Your task to perform on an android device: clear all cookies in the chrome app Image 0: 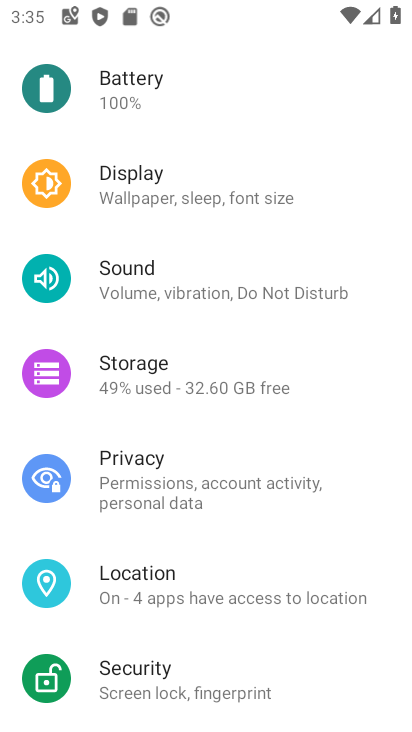
Step 0: press home button
Your task to perform on an android device: clear all cookies in the chrome app Image 1: 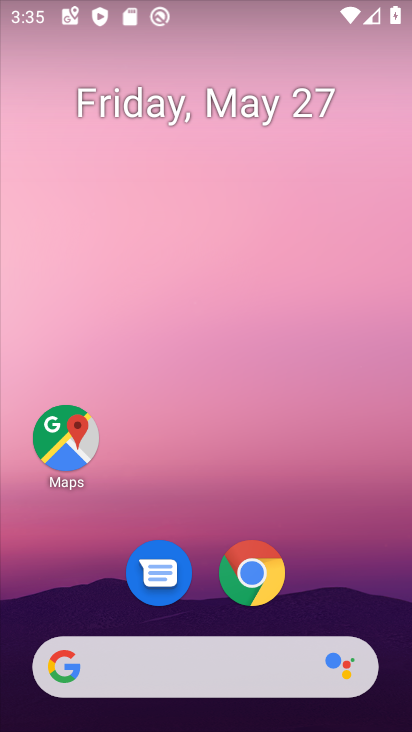
Step 1: click (257, 565)
Your task to perform on an android device: clear all cookies in the chrome app Image 2: 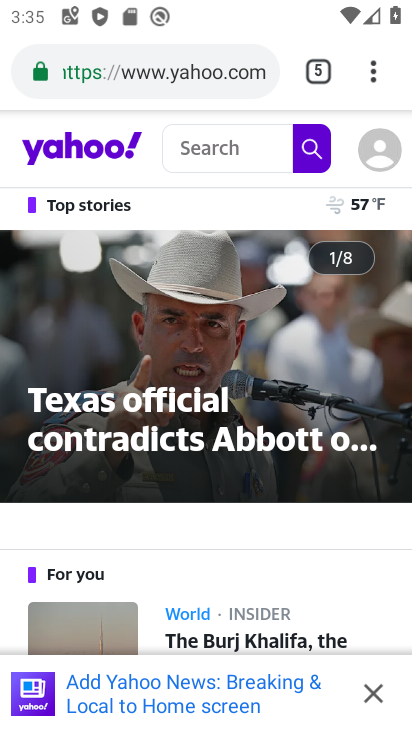
Step 2: click (370, 71)
Your task to perform on an android device: clear all cookies in the chrome app Image 3: 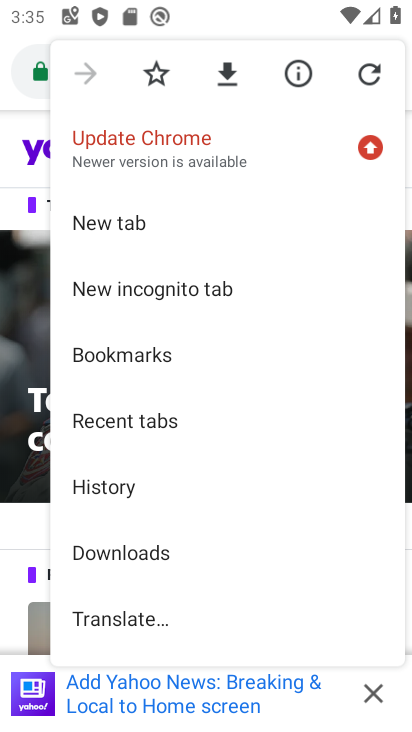
Step 3: click (127, 488)
Your task to perform on an android device: clear all cookies in the chrome app Image 4: 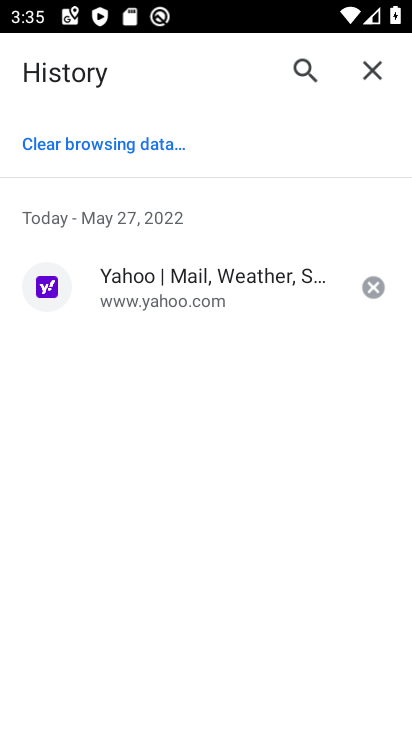
Step 4: click (115, 141)
Your task to perform on an android device: clear all cookies in the chrome app Image 5: 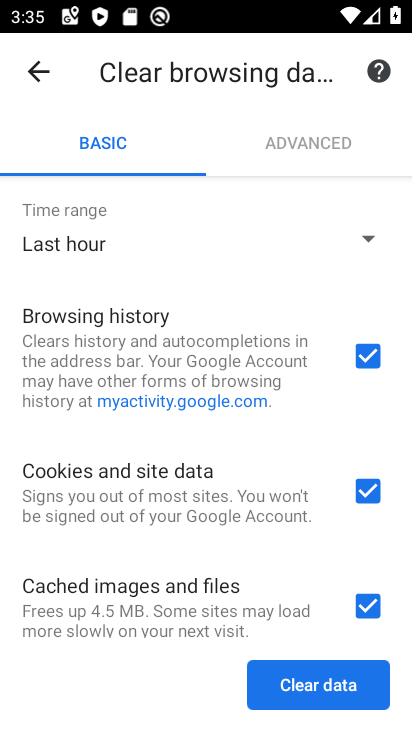
Step 5: click (323, 682)
Your task to perform on an android device: clear all cookies in the chrome app Image 6: 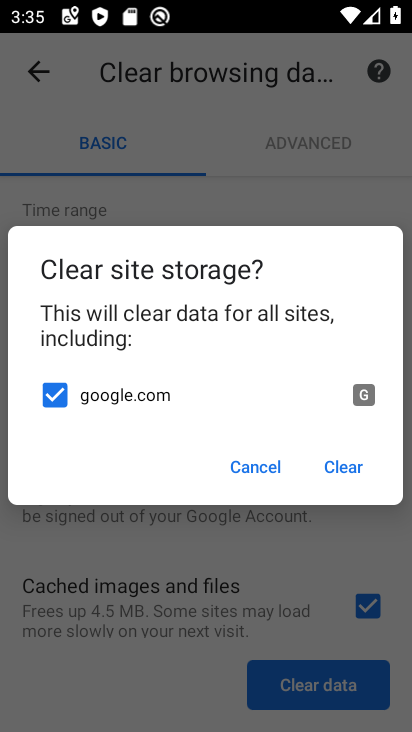
Step 6: click (350, 462)
Your task to perform on an android device: clear all cookies in the chrome app Image 7: 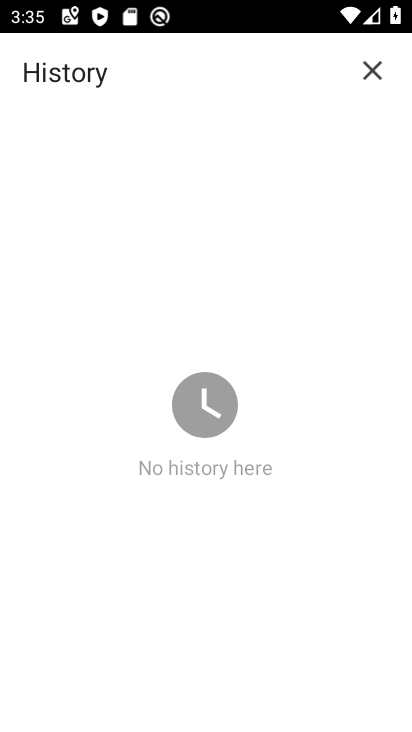
Step 7: task complete